Your task to perform on an android device: turn on data saver in the chrome app Image 0: 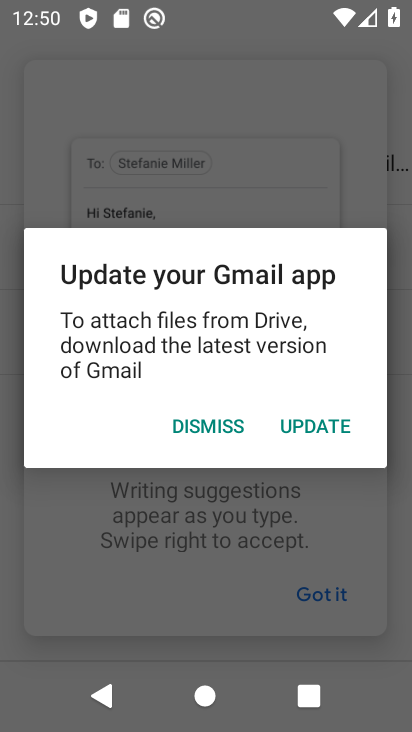
Step 0: press home button
Your task to perform on an android device: turn on data saver in the chrome app Image 1: 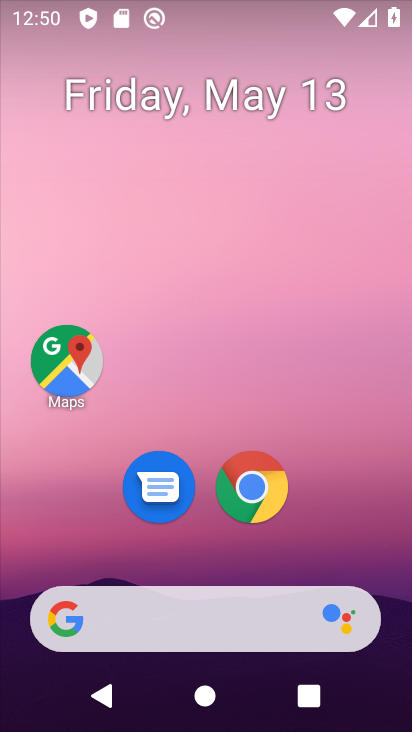
Step 1: drag from (373, 554) to (351, 100)
Your task to perform on an android device: turn on data saver in the chrome app Image 2: 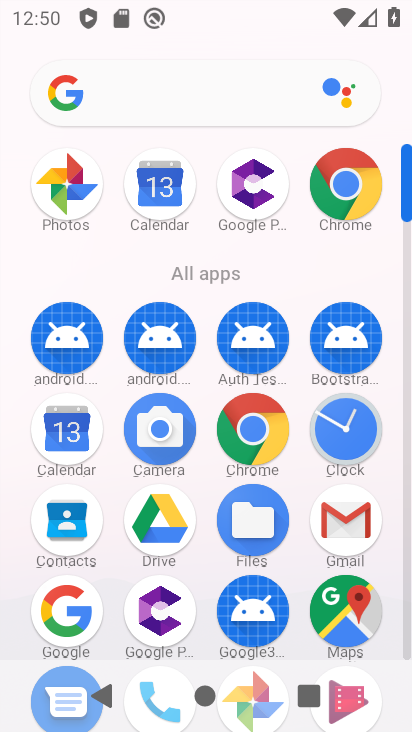
Step 2: click (238, 454)
Your task to perform on an android device: turn on data saver in the chrome app Image 3: 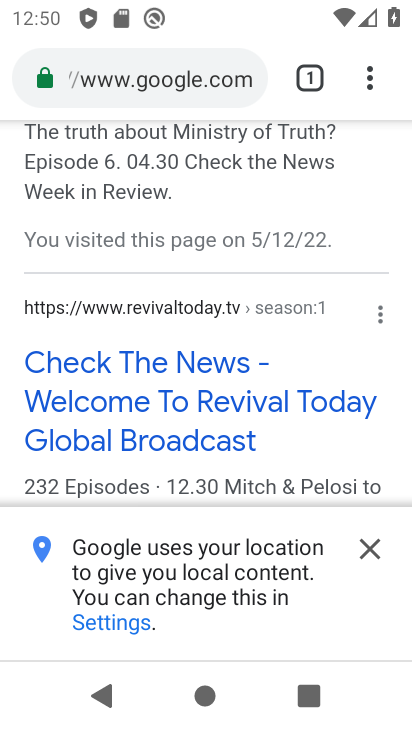
Step 3: drag from (381, 89) to (212, 565)
Your task to perform on an android device: turn on data saver in the chrome app Image 4: 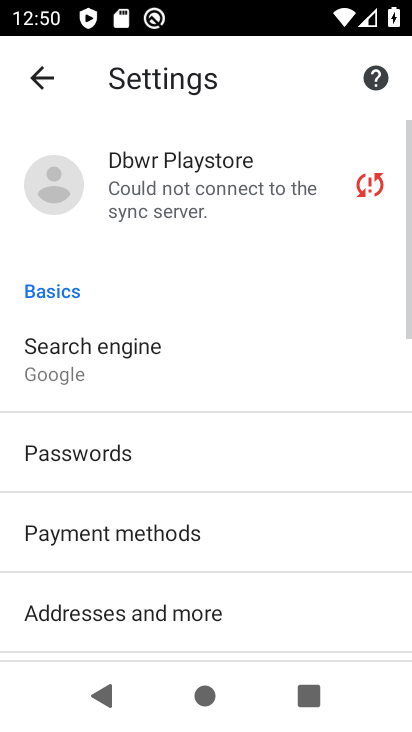
Step 4: drag from (296, 604) to (316, 360)
Your task to perform on an android device: turn on data saver in the chrome app Image 5: 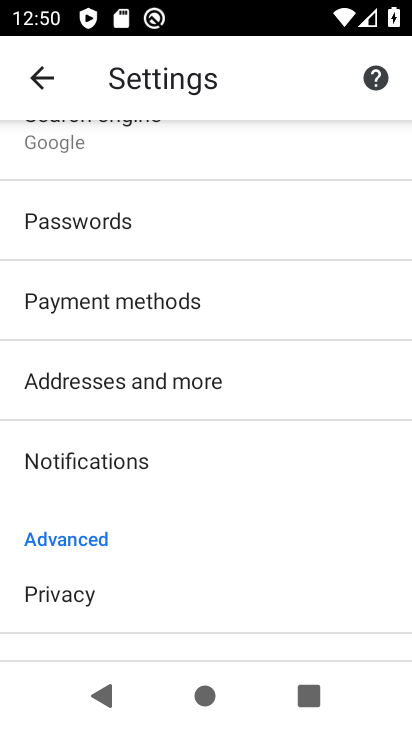
Step 5: drag from (291, 546) to (350, 290)
Your task to perform on an android device: turn on data saver in the chrome app Image 6: 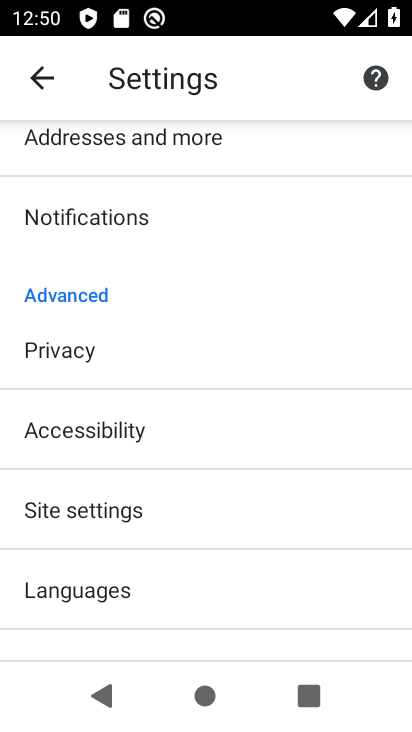
Step 6: drag from (290, 558) to (293, 332)
Your task to perform on an android device: turn on data saver in the chrome app Image 7: 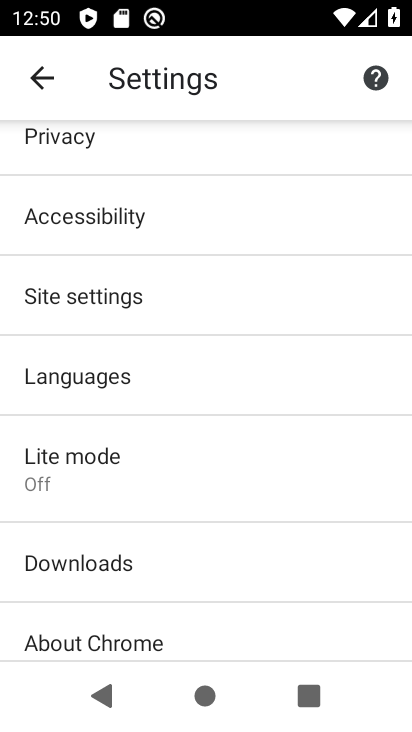
Step 7: click (109, 469)
Your task to perform on an android device: turn on data saver in the chrome app Image 8: 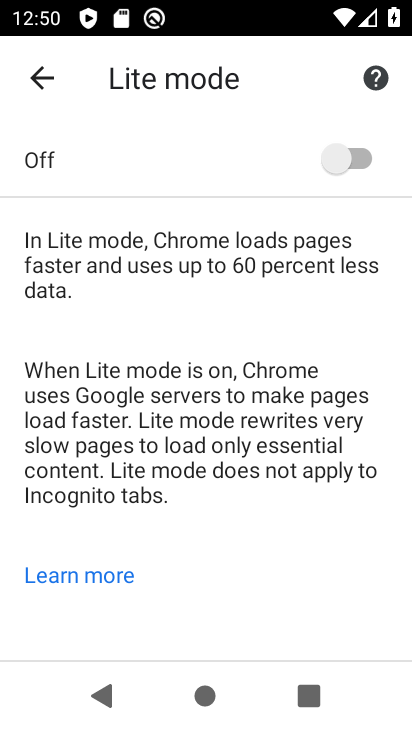
Step 8: click (358, 161)
Your task to perform on an android device: turn on data saver in the chrome app Image 9: 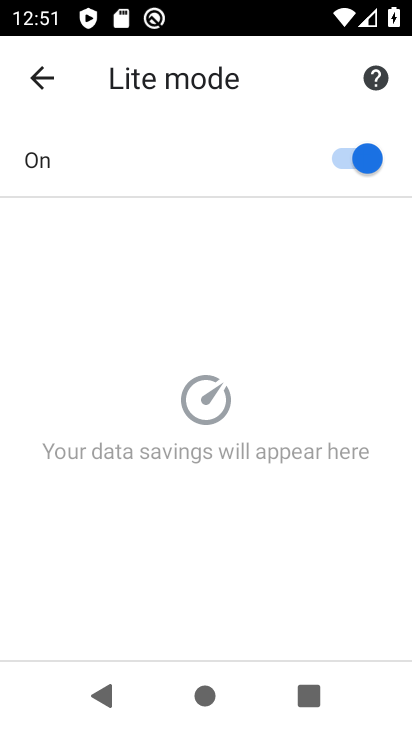
Step 9: task complete